Your task to perform on an android device: Toggle the flashlight Image 0: 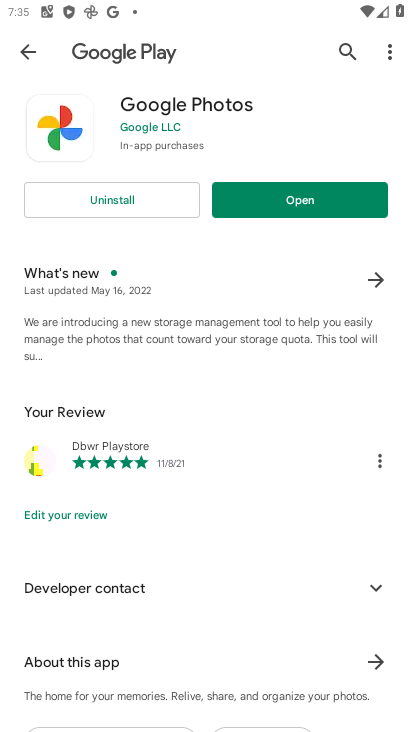
Step 0: press home button
Your task to perform on an android device: Toggle the flashlight Image 1: 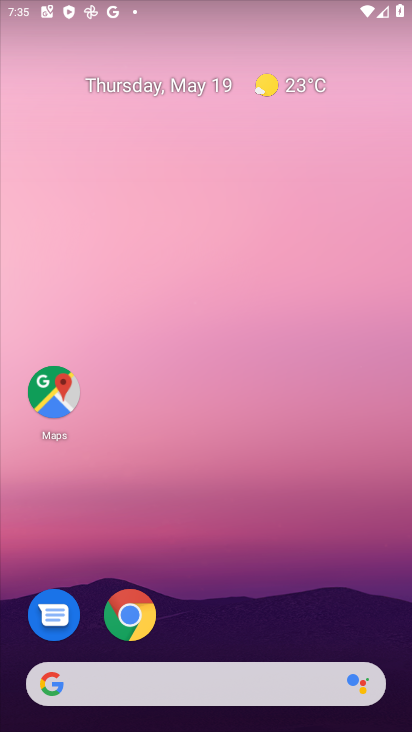
Step 1: drag from (360, 634) to (302, 45)
Your task to perform on an android device: Toggle the flashlight Image 2: 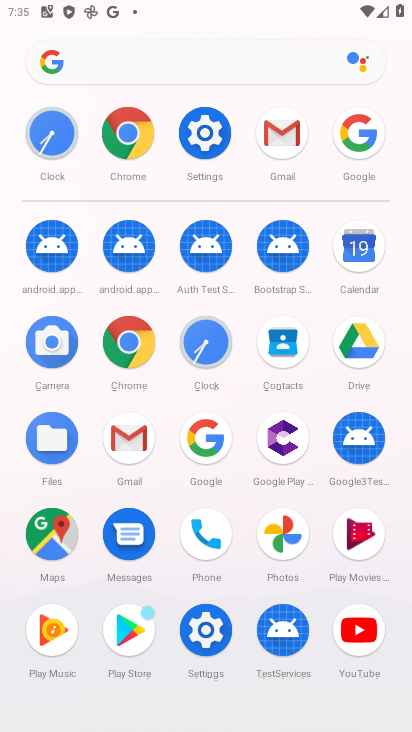
Step 2: click (211, 148)
Your task to perform on an android device: Toggle the flashlight Image 3: 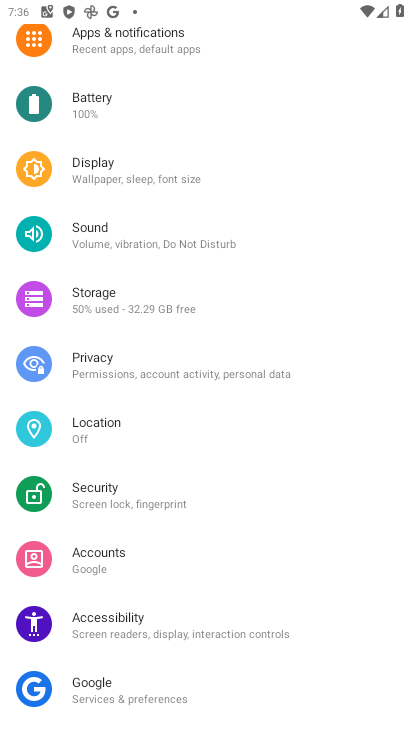
Step 3: task complete